Your task to perform on an android device: Open Wikipedia Image 0: 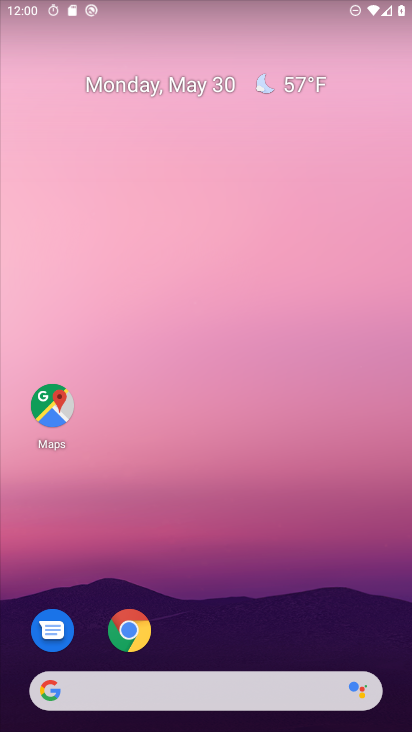
Step 0: drag from (237, 711) to (152, 189)
Your task to perform on an android device: Open Wikipedia Image 1: 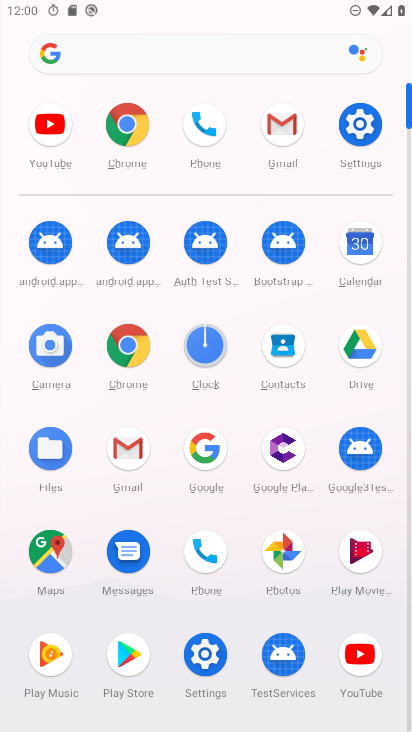
Step 1: click (121, 126)
Your task to perform on an android device: Open Wikipedia Image 2: 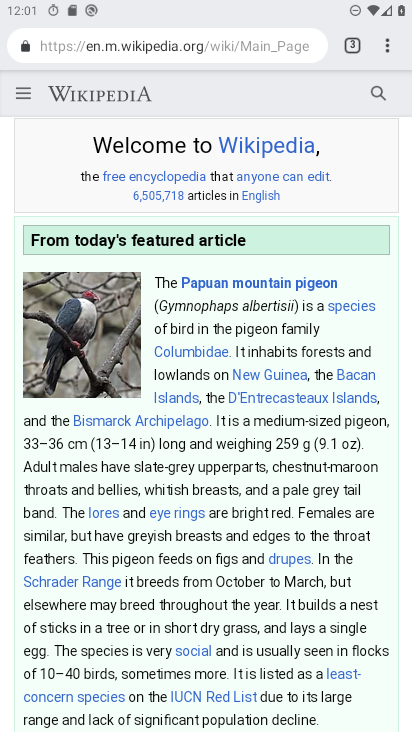
Step 2: click (268, 55)
Your task to perform on an android device: Open Wikipedia Image 3: 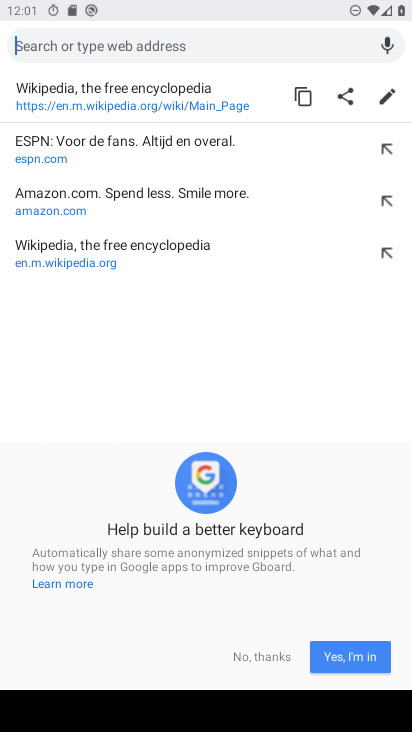
Step 3: click (163, 95)
Your task to perform on an android device: Open Wikipedia Image 4: 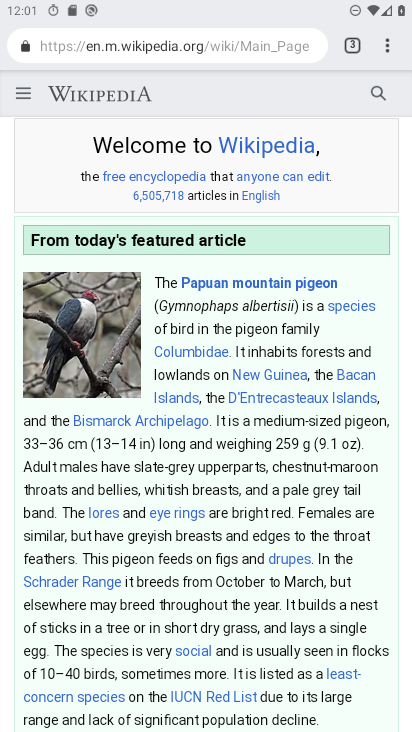
Step 4: task complete